Your task to perform on an android device: Show me recent news Image 0: 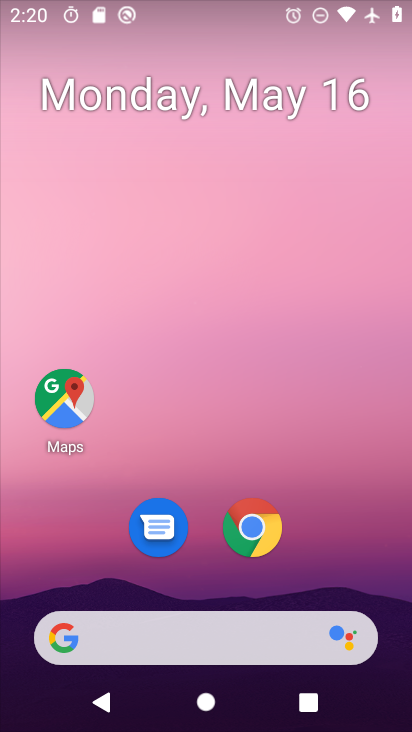
Step 0: click (69, 645)
Your task to perform on an android device: Show me recent news Image 1: 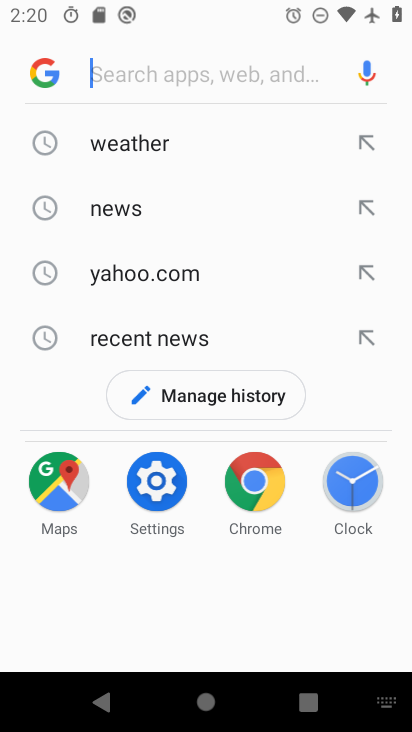
Step 1: click (116, 210)
Your task to perform on an android device: Show me recent news Image 2: 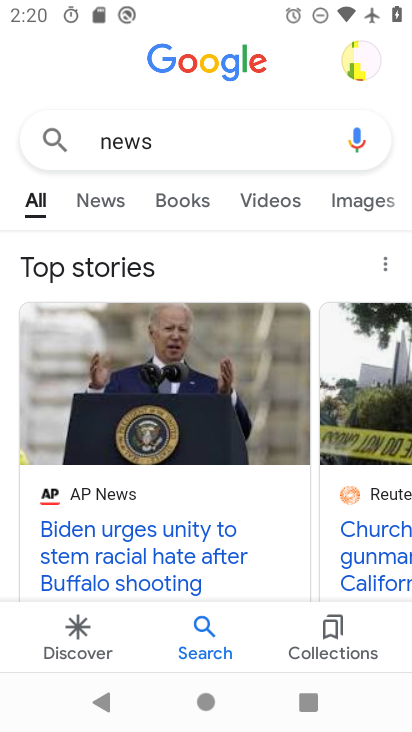
Step 2: click (101, 204)
Your task to perform on an android device: Show me recent news Image 3: 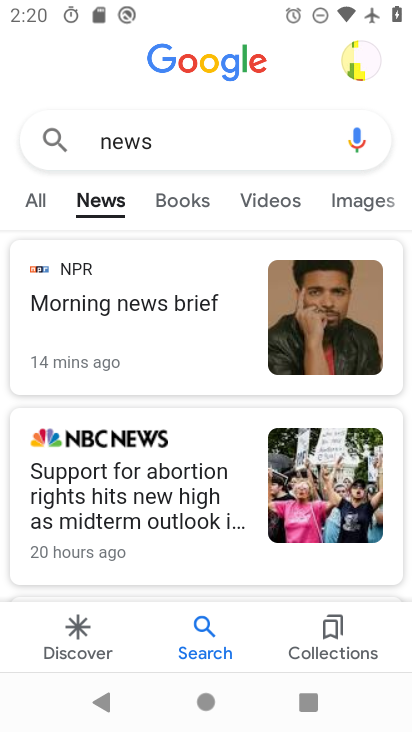
Step 3: task complete